Your task to perform on an android device: Open display settings Image 0: 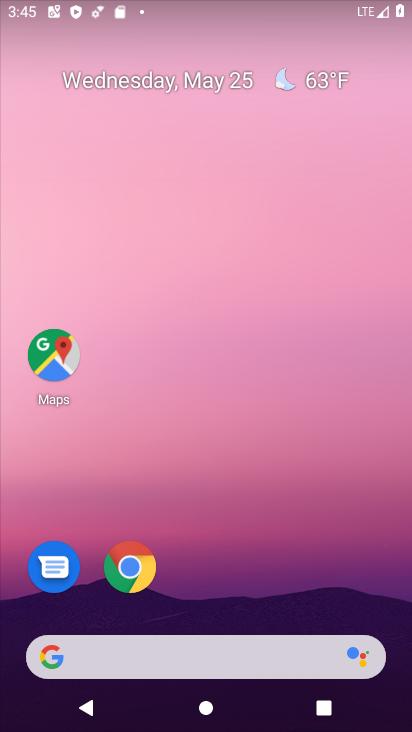
Step 0: drag from (218, 582) to (241, 131)
Your task to perform on an android device: Open display settings Image 1: 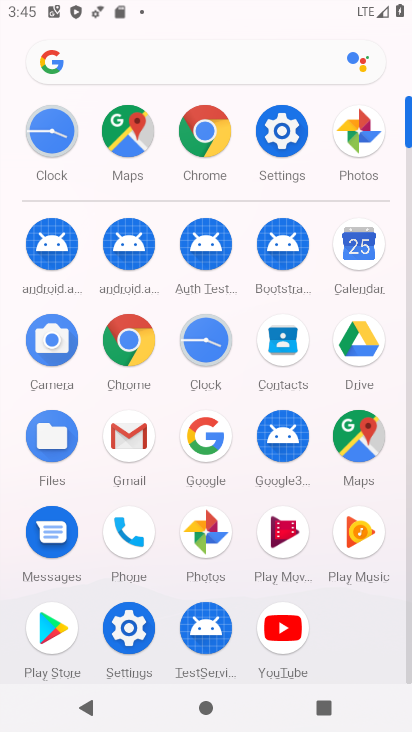
Step 1: click (125, 629)
Your task to perform on an android device: Open display settings Image 2: 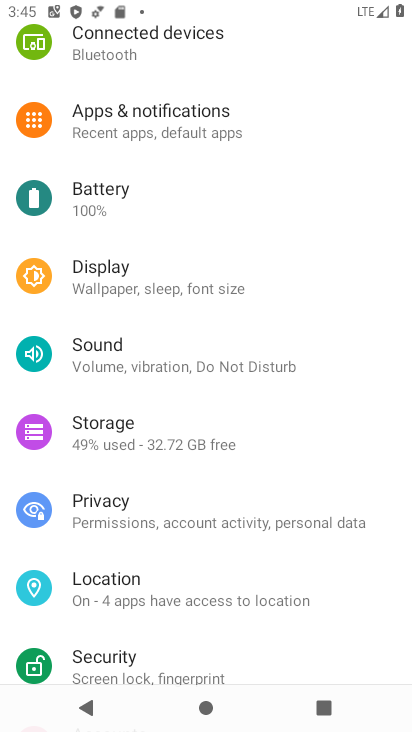
Step 2: click (93, 279)
Your task to perform on an android device: Open display settings Image 3: 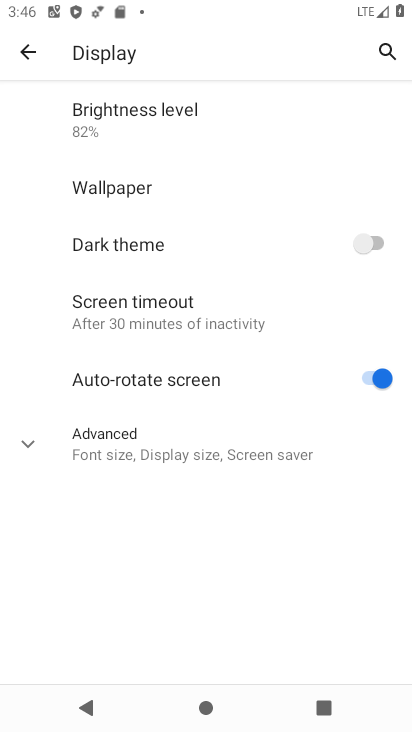
Step 3: task complete